Your task to perform on an android device: turn on wifi Image 0: 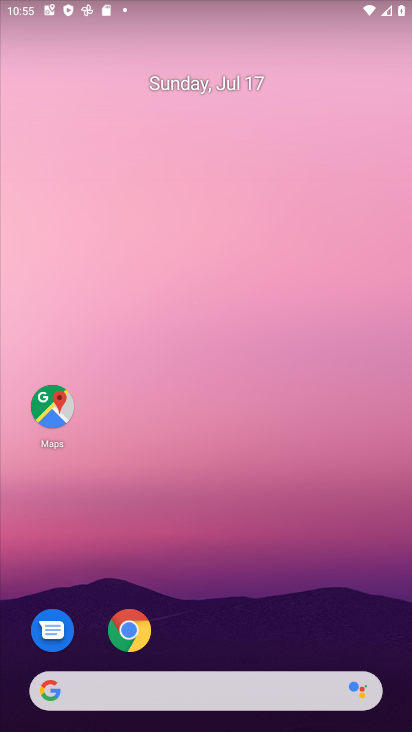
Step 0: drag from (315, 624) to (279, 165)
Your task to perform on an android device: turn on wifi Image 1: 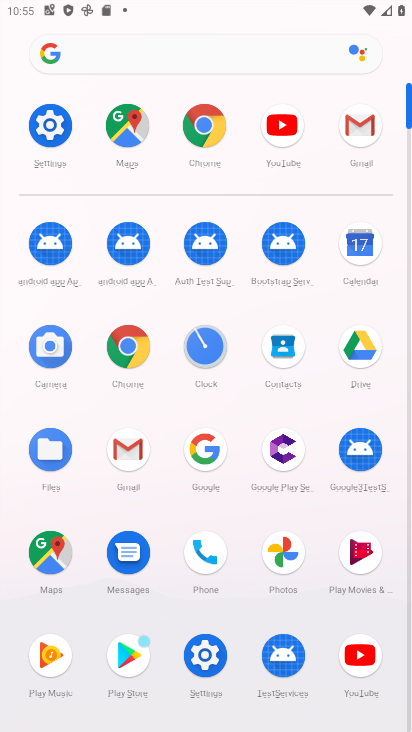
Step 1: click (47, 130)
Your task to perform on an android device: turn on wifi Image 2: 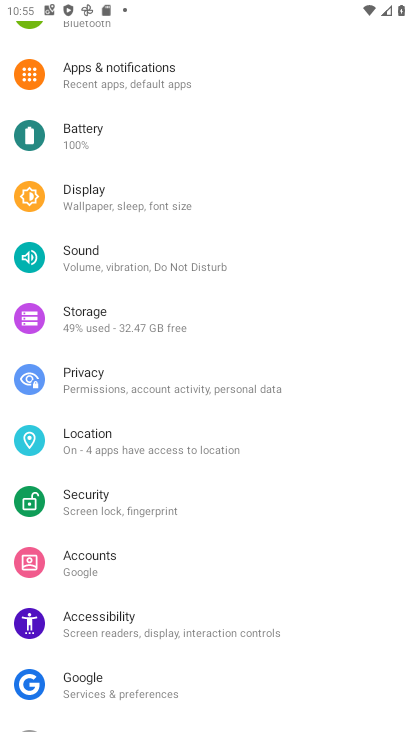
Step 2: drag from (182, 306) to (204, 638)
Your task to perform on an android device: turn on wifi Image 3: 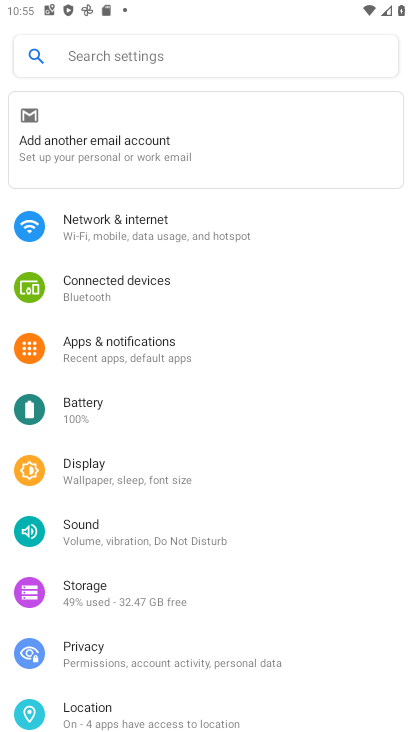
Step 3: click (148, 239)
Your task to perform on an android device: turn on wifi Image 4: 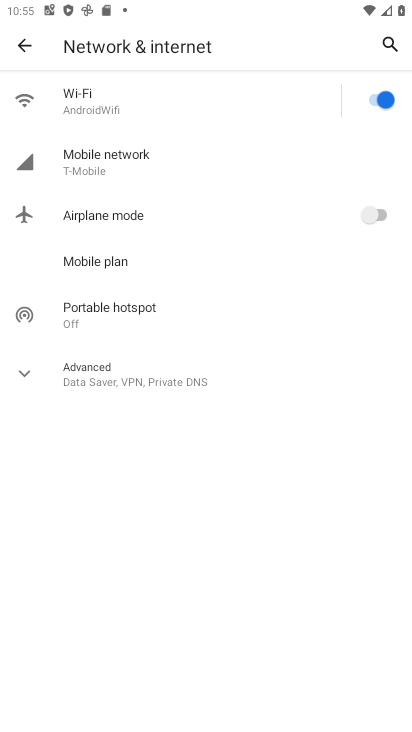
Step 4: task complete